Your task to perform on an android device: Open notification settings Image 0: 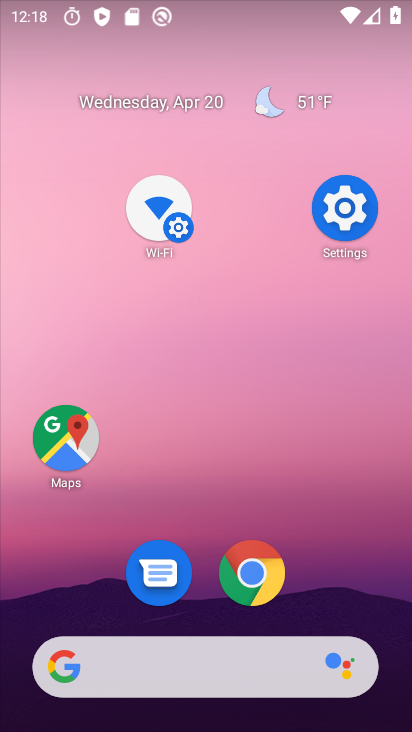
Step 0: drag from (311, 590) to (323, 219)
Your task to perform on an android device: Open notification settings Image 1: 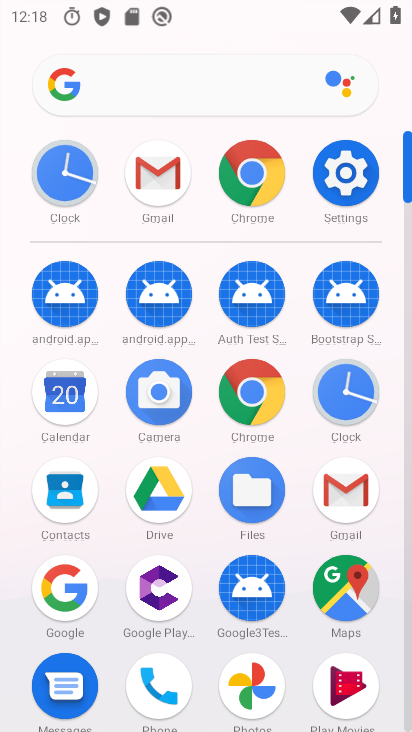
Step 1: click (337, 198)
Your task to perform on an android device: Open notification settings Image 2: 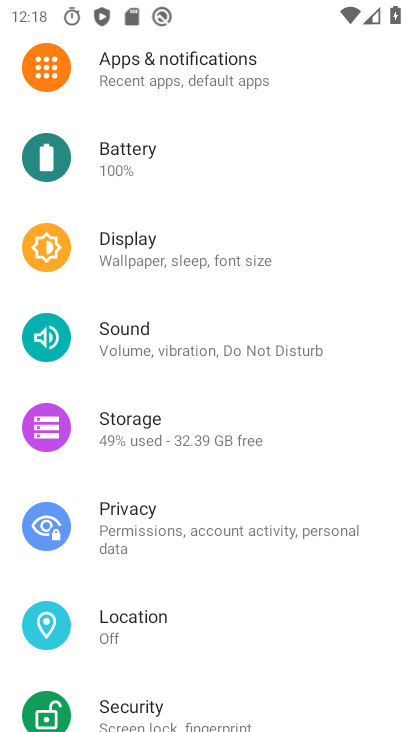
Step 2: click (228, 85)
Your task to perform on an android device: Open notification settings Image 3: 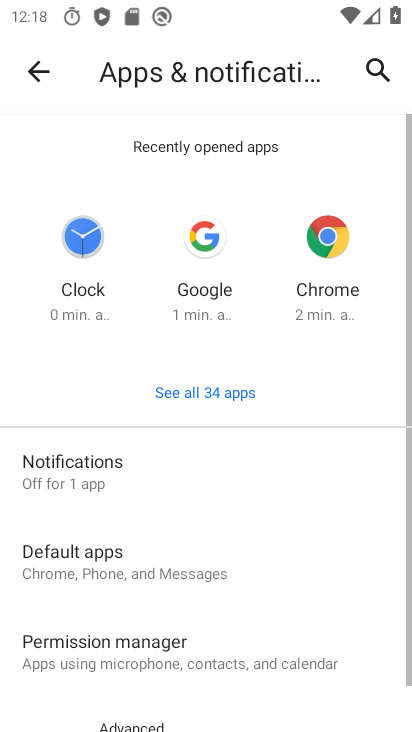
Step 3: click (105, 487)
Your task to perform on an android device: Open notification settings Image 4: 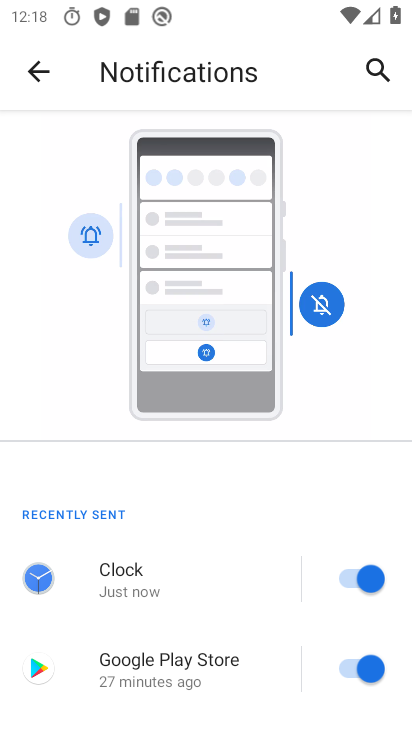
Step 4: task complete